Your task to perform on an android device: Open Youtube and go to the subscriptions tab Image 0: 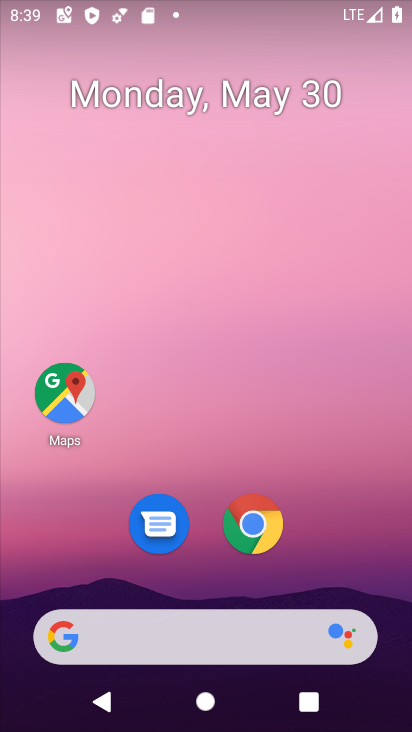
Step 0: drag from (232, 436) to (233, 13)
Your task to perform on an android device: Open Youtube and go to the subscriptions tab Image 1: 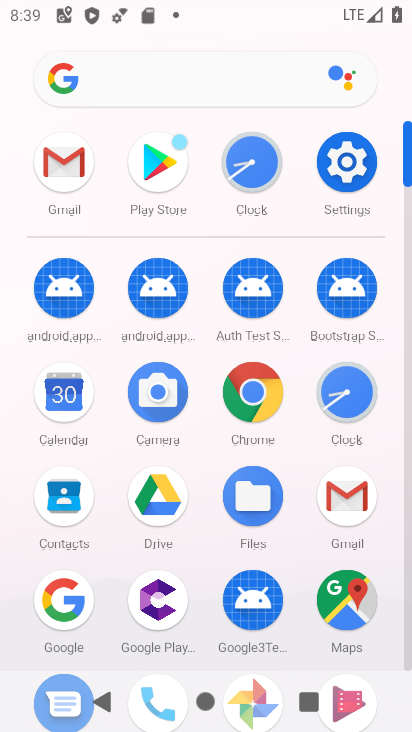
Step 1: drag from (192, 554) to (218, 136)
Your task to perform on an android device: Open Youtube and go to the subscriptions tab Image 2: 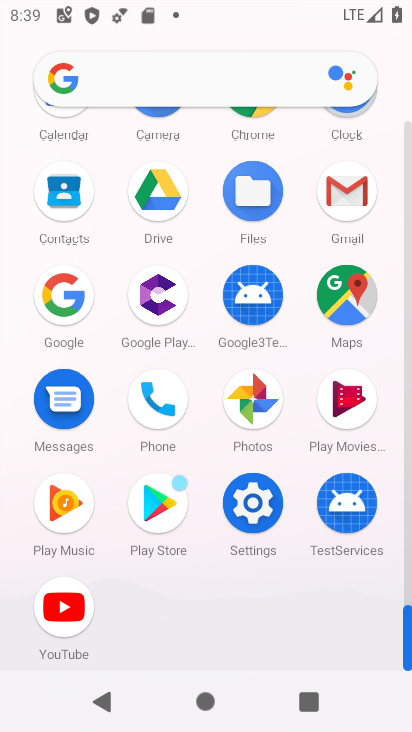
Step 2: click (63, 594)
Your task to perform on an android device: Open Youtube and go to the subscriptions tab Image 3: 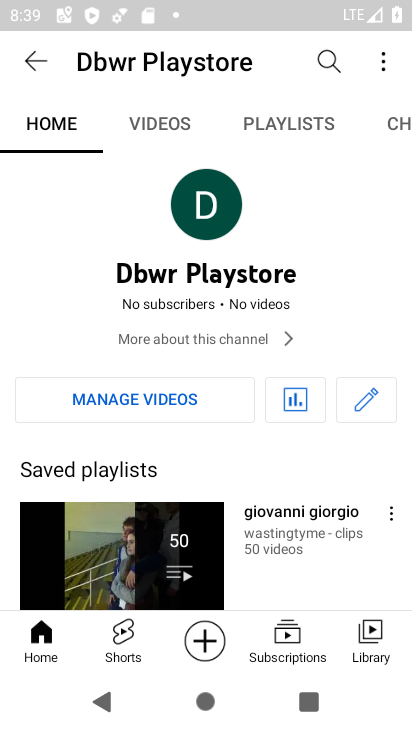
Step 3: click (296, 633)
Your task to perform on an android device: Open Youtube and go to the subscriptions tab Image 4: 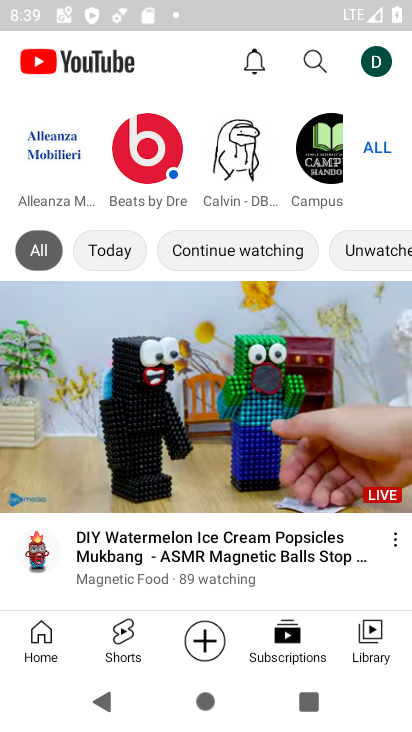
Step 4: task complete